Your task to perform on an android device: Open wifi settings Image 0: 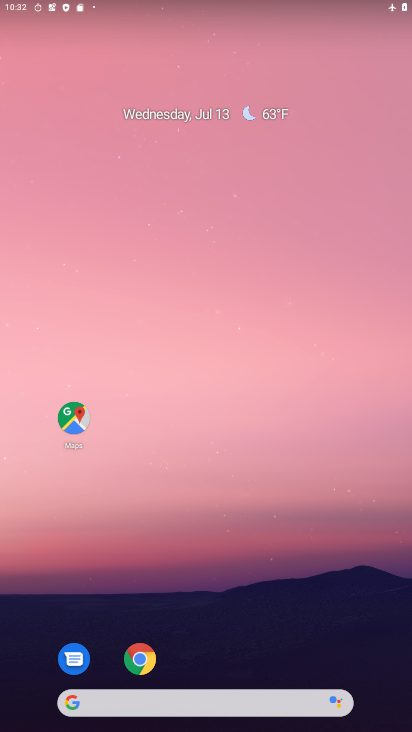
Step 0: drag from (331, 613) to (296, 93)
Your task to perform on an android device: Open wifi settings Image 1: 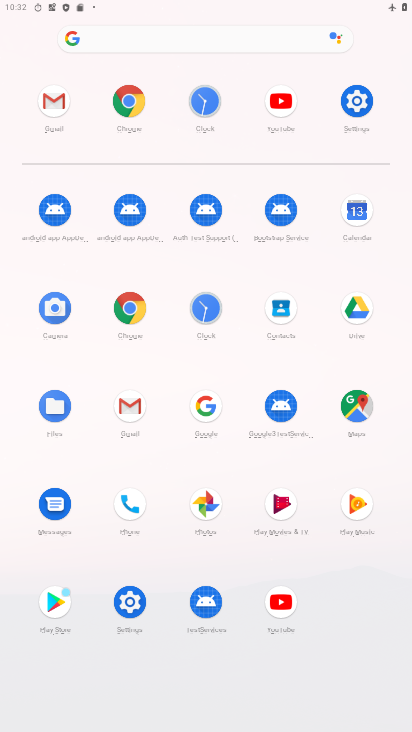
Step 1: click (352, 101)
Your task to perform on an android device: Open wifi settings Image 2: 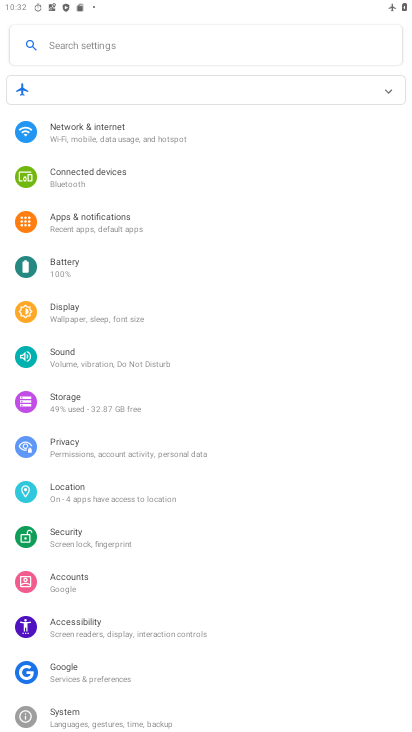
Step 2: click (113, 140)
Your task to perform on an android device: Open wifi settings Image 3: 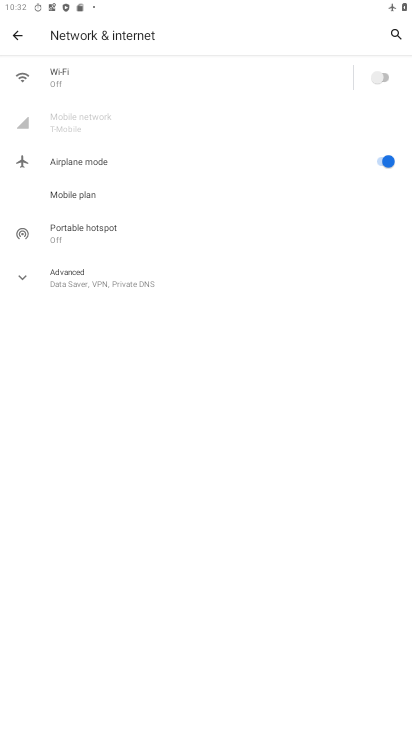
Step 3: click (314, 74)
Your task to perform on an android device: Open wifi settings Image 4: 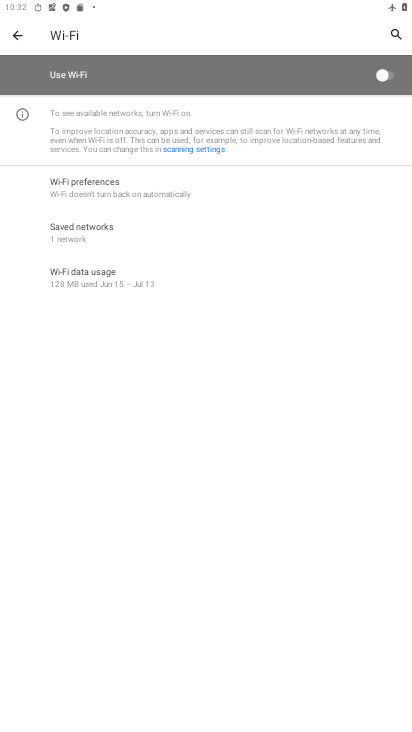
Step 4: click (375, 77)
Your task to perform on an android device: Open wifi settings Image 5: 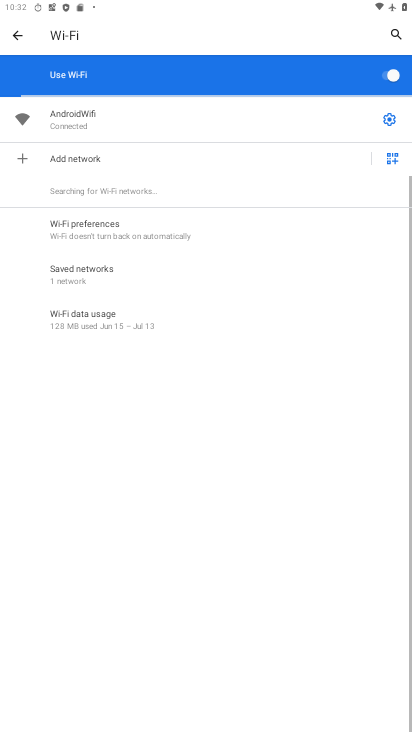
Step 5: click (390, 125)
Your task to perform on an android device: Open wifi settings Image 6: 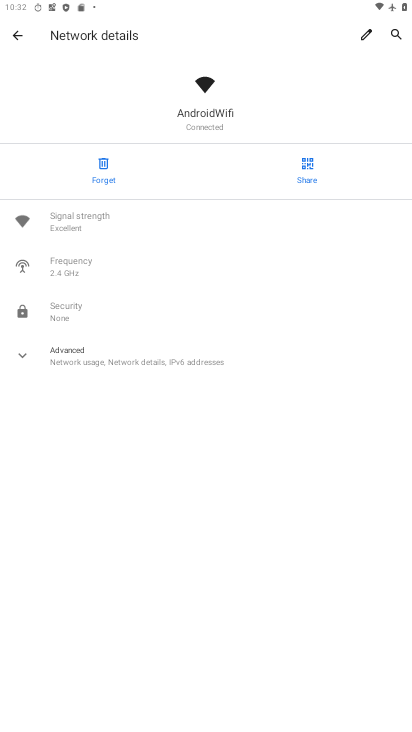
Step 6: task complete